Your task to perform on an android device: turn on the 24-hour format for clock Image 0: 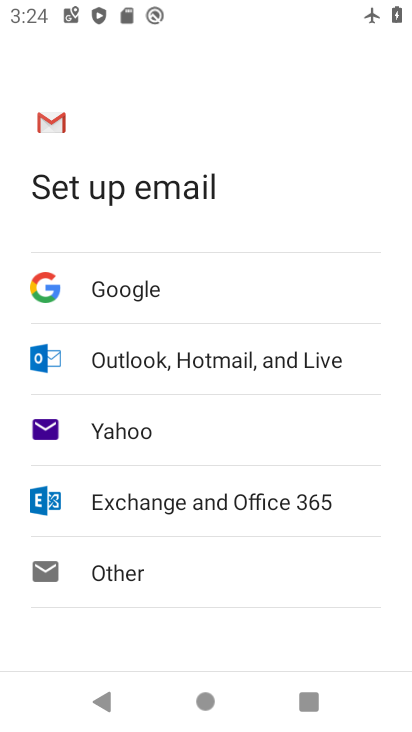
Step 0: press home button
Your task to perform on an android device: turn on the 24-hour format for clock Image 1: 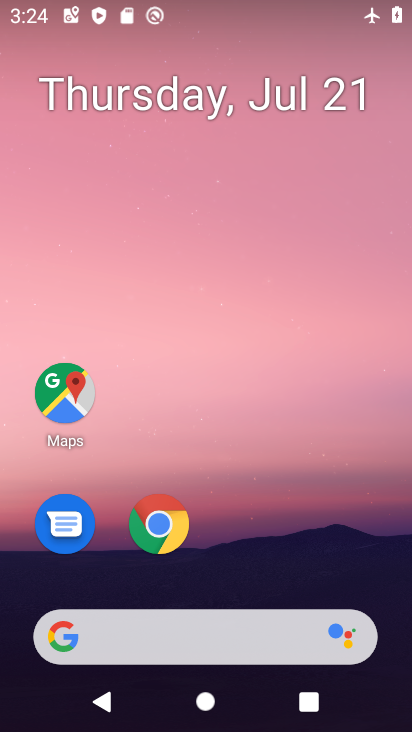
Step 1: drag from (245, 512) to (312, 1)
Your task to perform on an android device: turn on the 24-hour format for clock Image 2: 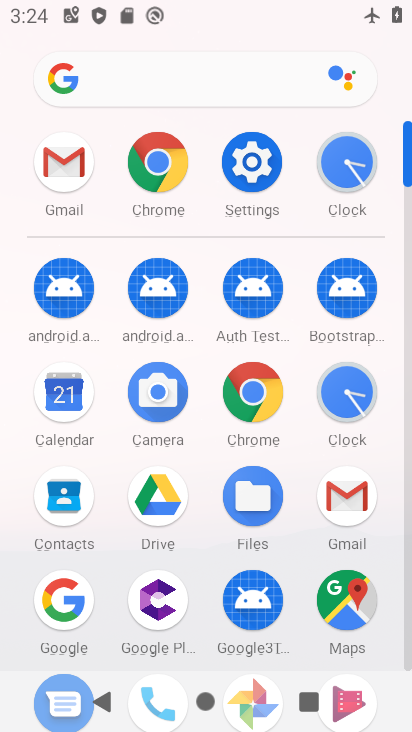
Step 2: click (347, 158)
Your task to perform on an android device: turn on the 24-hour format for clock Image 3: 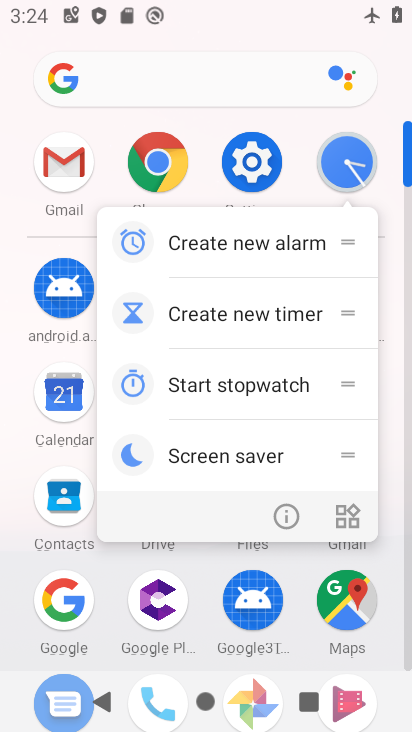
Step 3: click (345, 155)
Your task to perform on an android device: turn on the 24-hour format for clock Image 4: 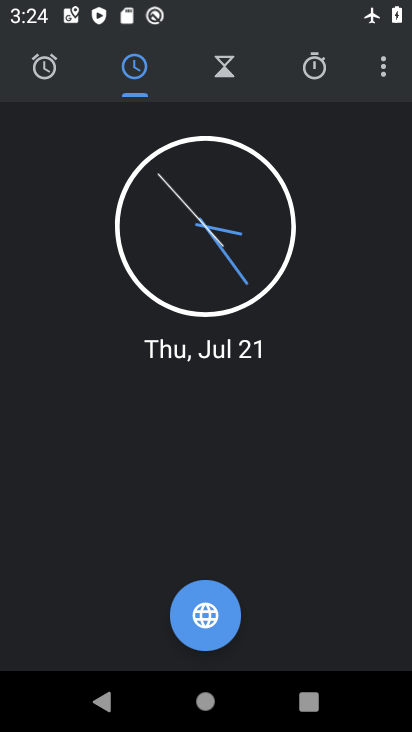
Step 4: click (387, 71)
Your task to perform on an android device: turn on the 24-hour format for clock Image 5: 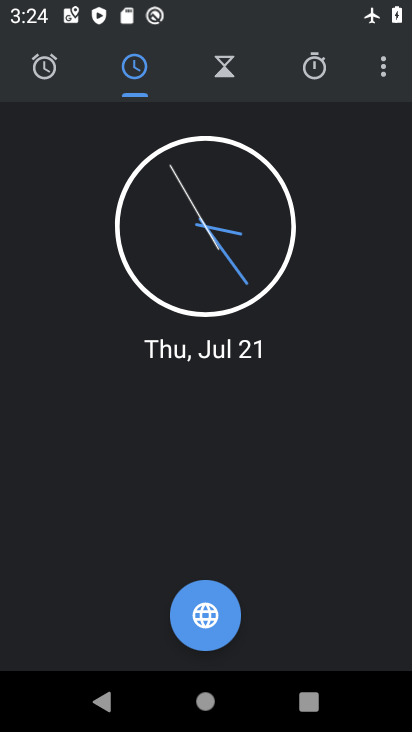
Step 5: click (387, 70)
Your task to perform on an android device: turn on the 24-hour format for clock Image 6: 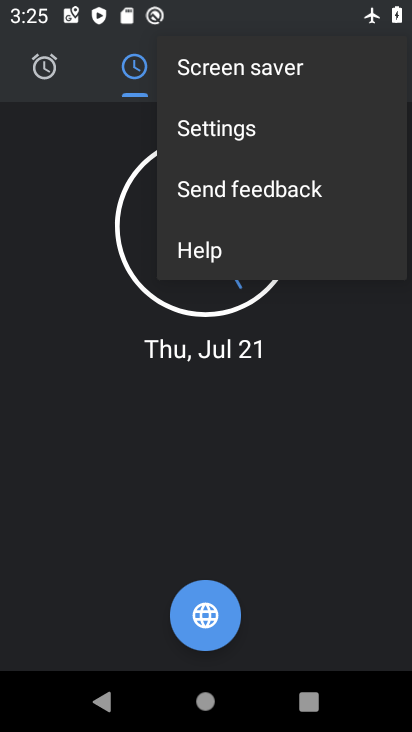
Step 6: click (250, 137)
Your task to perform on an android device: turn on the 24-hour format for clock Image 7: 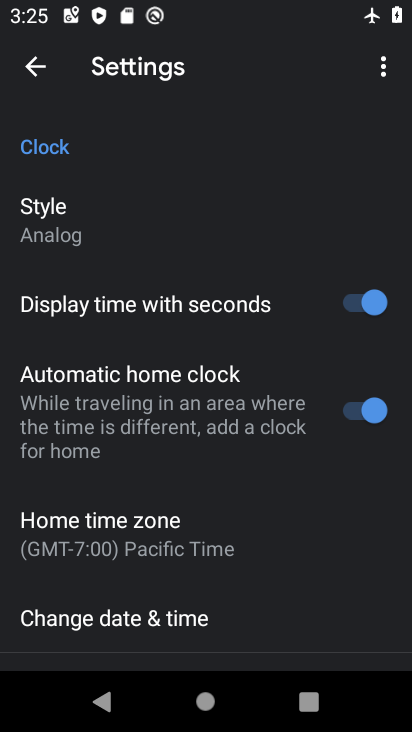
Step 7: drag from (260, 486) to (291, 2)
Your task to perform on an android device: turn on the 24-hour format for clock Image 8: 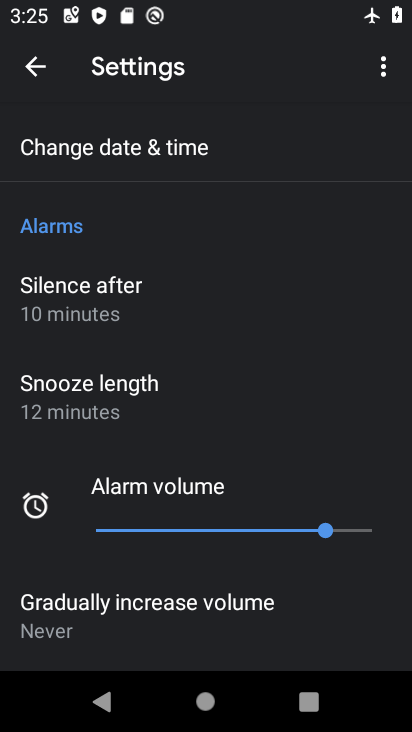
Step 8: drag from (296, 484) to (300, 1)
Your task to perform on an android device: turn on the 24-hour format for clock Image 9: 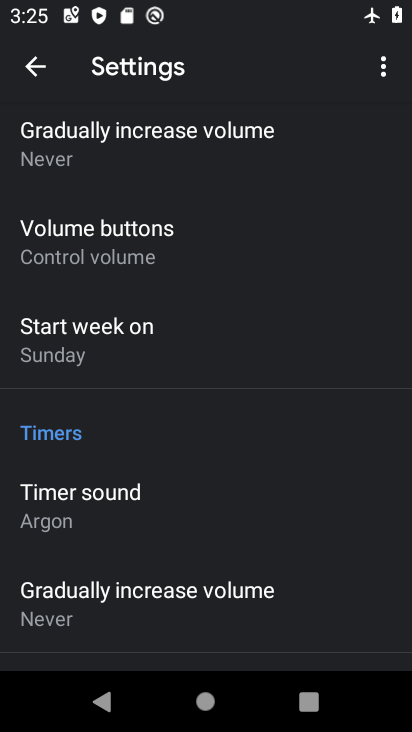
Step 9: drag from (309, 209) to (345, 621)
Your task to perform on an android device: turn on the 24-hour format for clock Image 10: 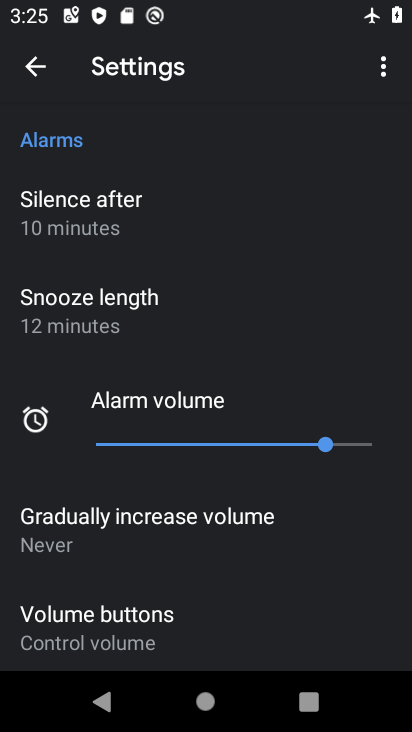
Step 10: drag from (247, 122) to (274, 539)
Your task to perform on an android device: turn on the 24-hour format for clock Image 11: 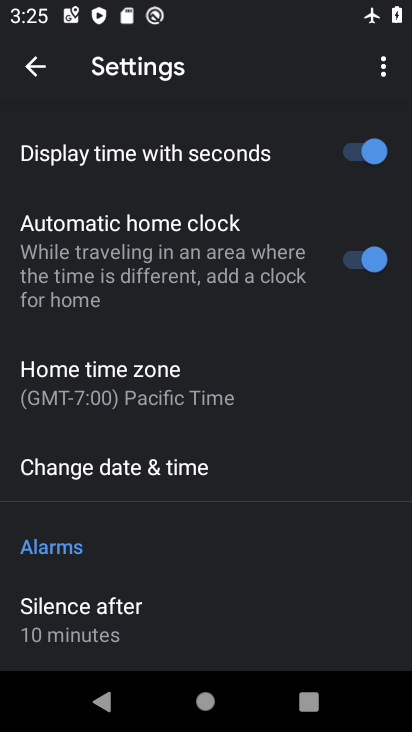
Step 11: click (256, 470)
Your task to perform on an android device: turn on the 24-hour format for clock Image 12: 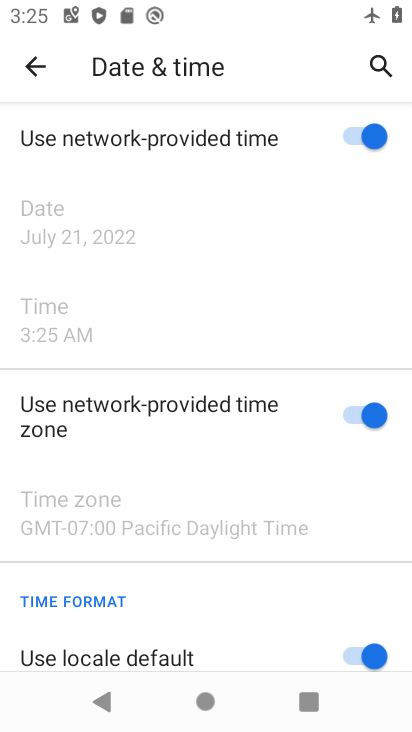
Step 12: drag from (255, 482) to (269, 182)
Your task to perform on an android device: turn on the 24-hour format for clock Image 13: 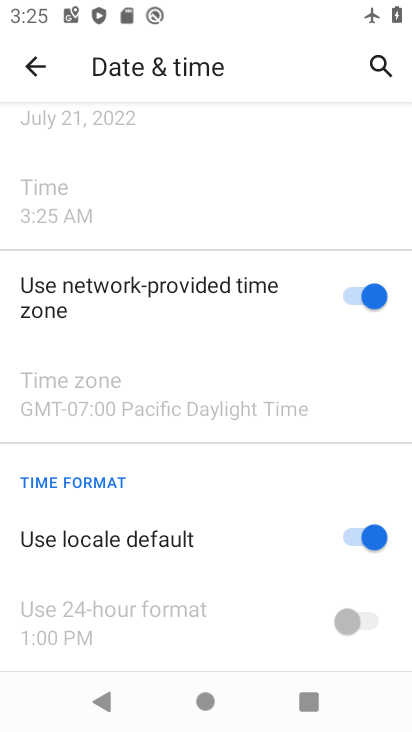
Step 13: click (363, 536)
Your task to perform on an android device: turn on the 24-hour format for clock Image 14: 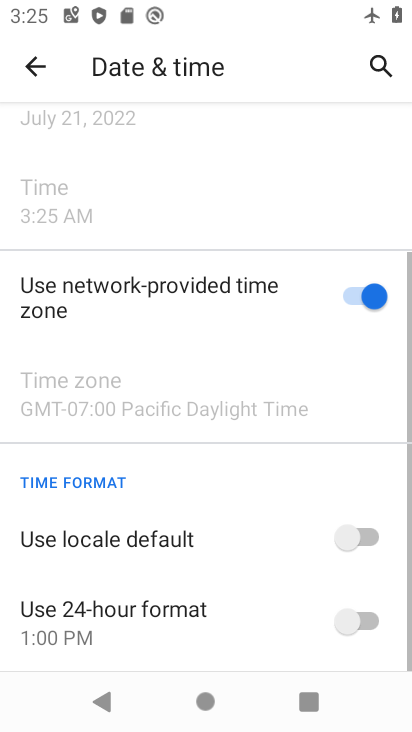
Step 14: click (365, 614)
Your task to perform on an android device: turn on the 24-hour format for clock Image 15: 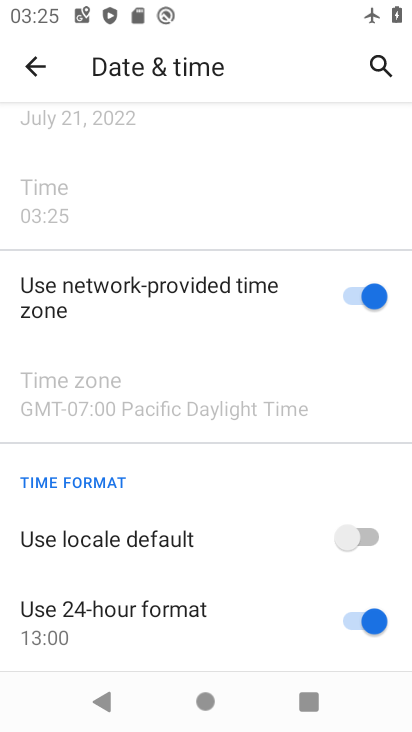
Step 15: task complete